Your task to perform on an android device: Open Google Chrome and click the shortcut for Amazon.com Image 0: 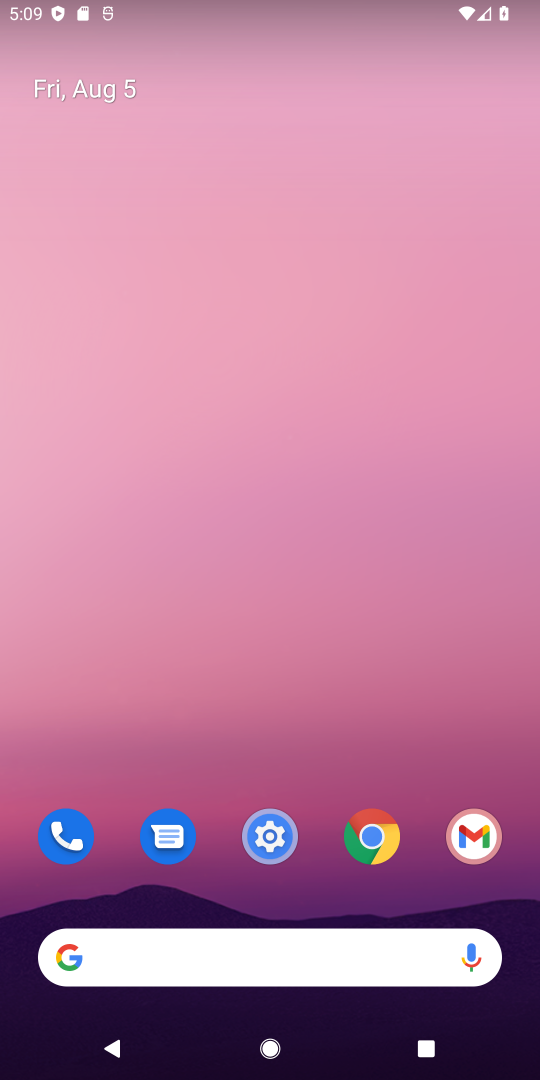
Step 0: press home button
Your task to perform on an android device: Open Google Chrome and click the shortcut for Amazon.com Image 1: 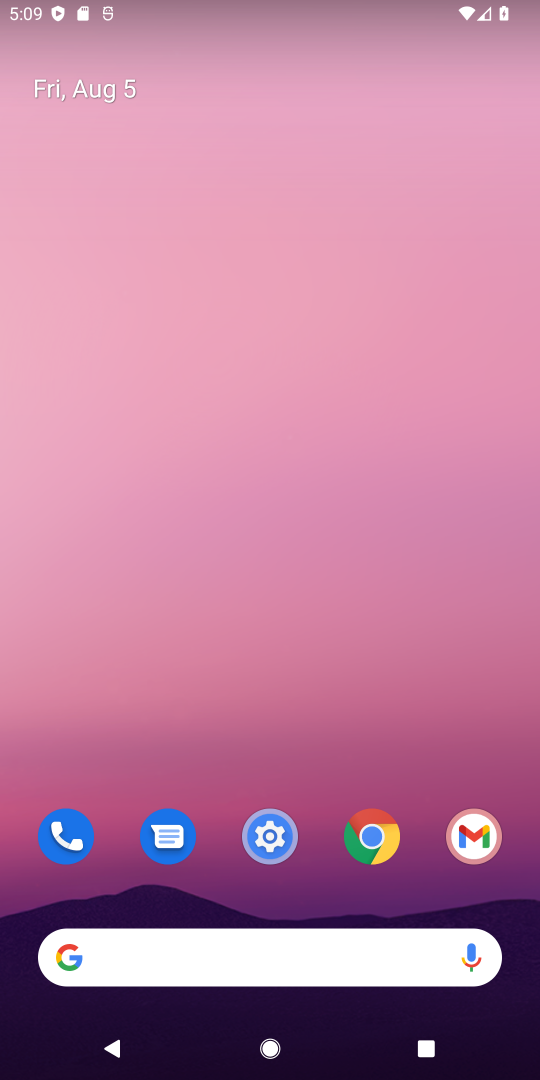
Step 1: click (371, 827)
Your task to perform on an android device: Open Google Chrome and click the shortcut for Amazon.com Image 2: 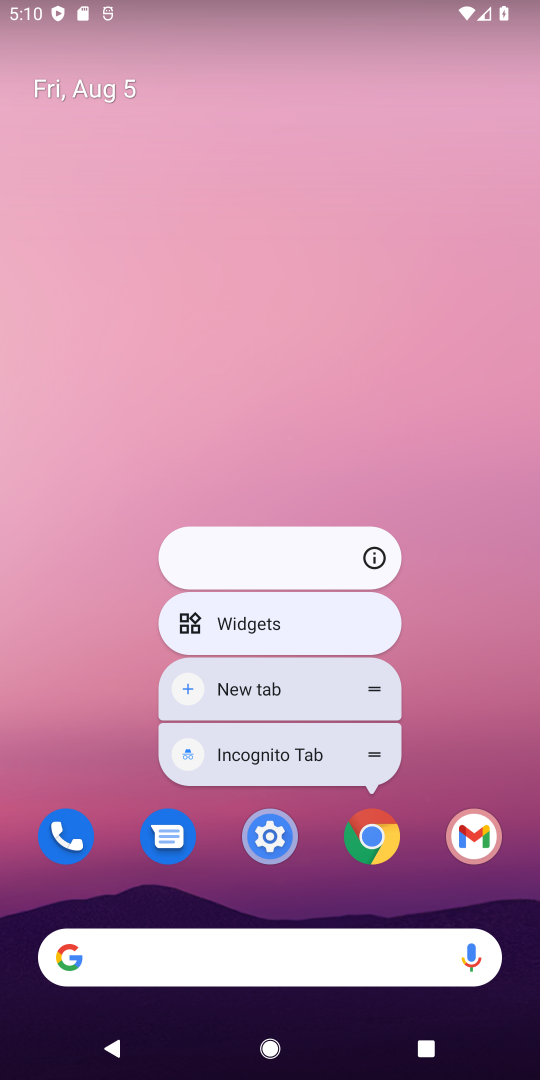
Step 2: click (371, 829)
Your task to perform on an android device: Open Google Chrome and click the shortcut for Amazon.com Image 3: 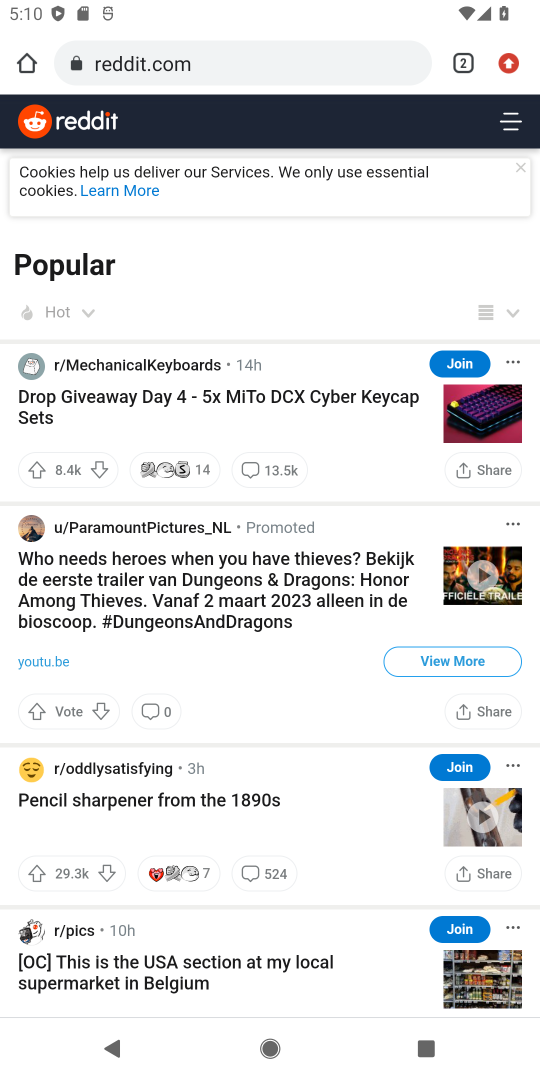
Step 3: click (458, 60)
Your task to perform on an android device: Open Google Chrome and click the shortcut for Amazon.com Image 4: 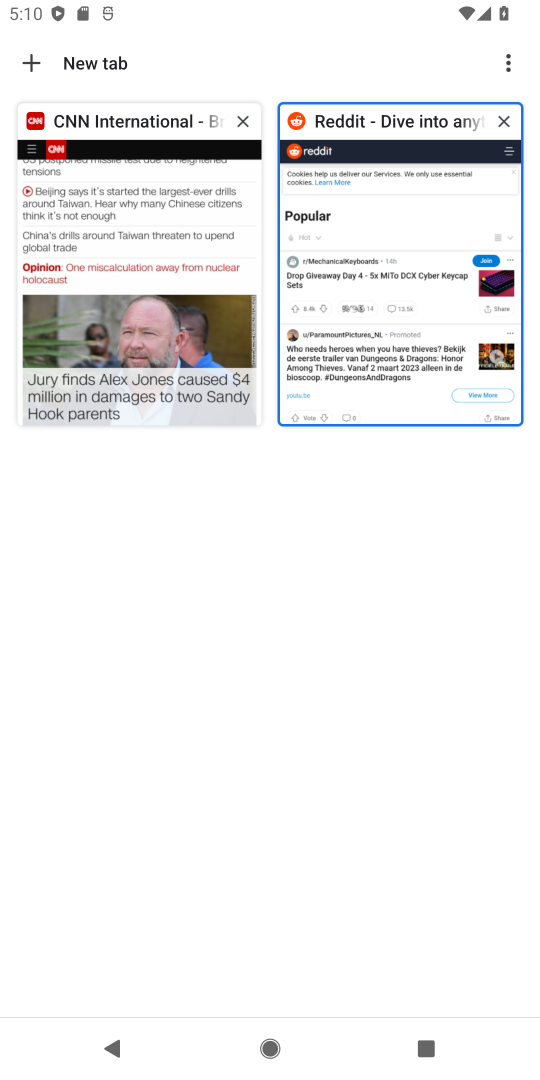
Step 4: click (25, 63)
Your task to perform on an android device: Open Google Chrome and click the shortcut for Amazon.com Image 5: 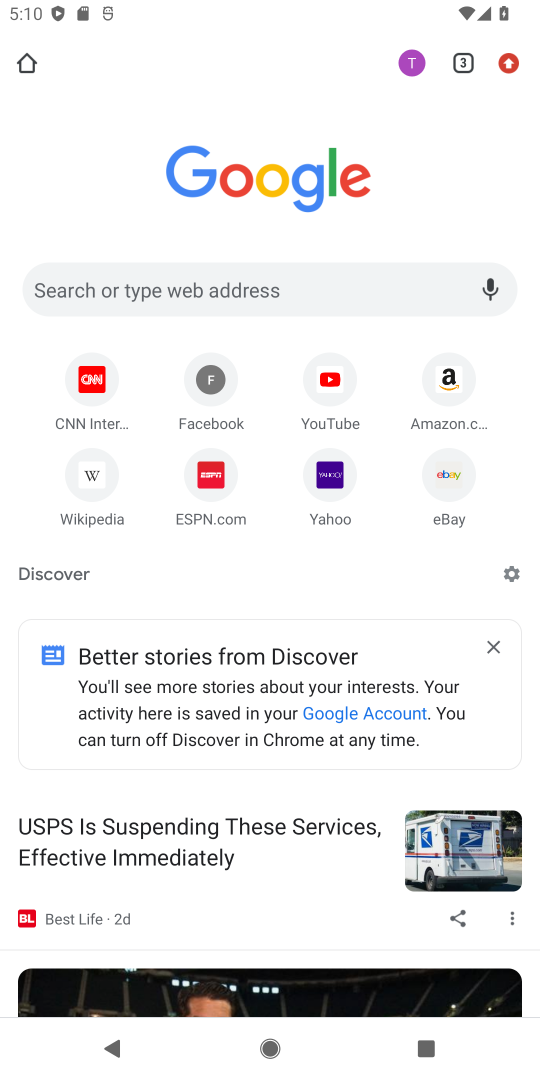
Step 5: click (444, 374)
Your task to perform on an android device: Open Google Chrome and click the shortcut for Amazon.com Image 6: 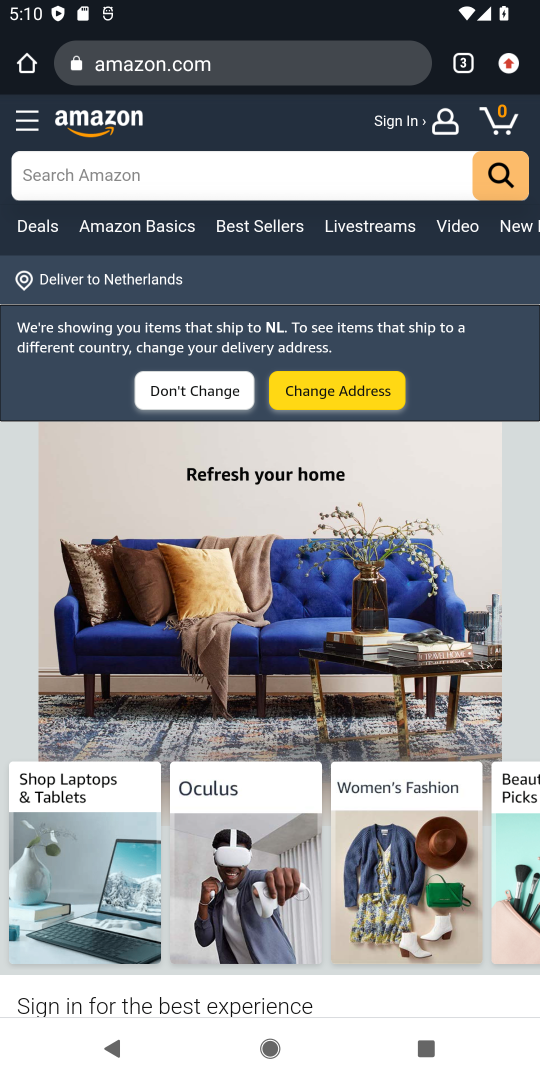
Step 6: task complete